Your task to perform on an android device: Open Youtube and go to the subscriptions tab Image 0: 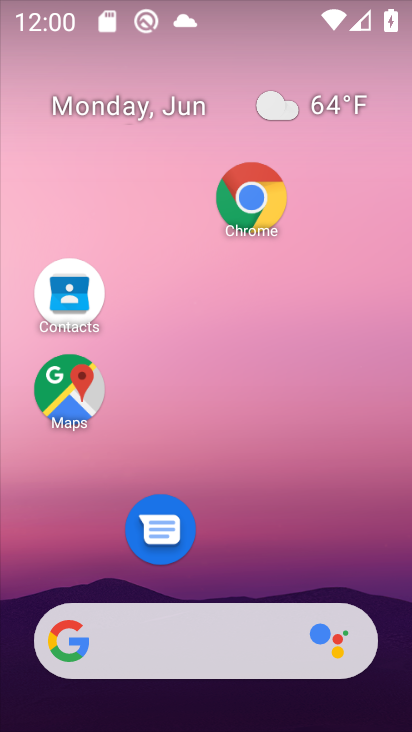
Step 0: drag from (295, 554) to (271, 32)
Your task to perform on an android device: Open Youtube and go to the subscriptions tab Image 1: 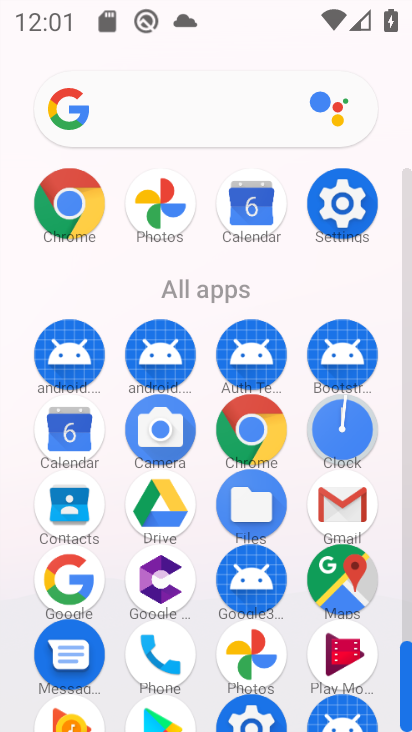
Step 1: drag from (208, 583) to (188, 252)
Your task to perform on an android device: Open Youtube and go to the subscriptions tab Image 2: 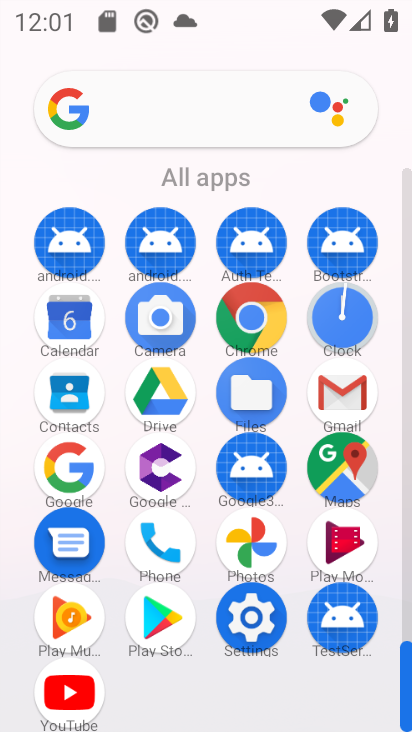
Step 2: click (84, 700)
Your task to perform on an android device: Open Youtube and go to the subscriptions tab Image 3: 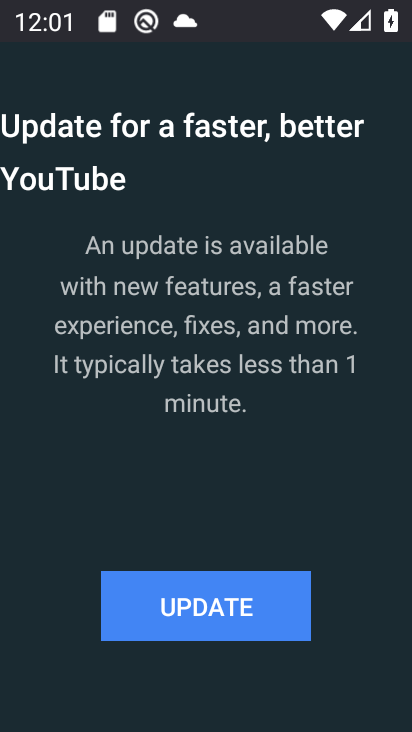
Step 3: click (261, 623)
Your task to perform on an android device: Open Youtube and go to the subscriptions tab Image 4: 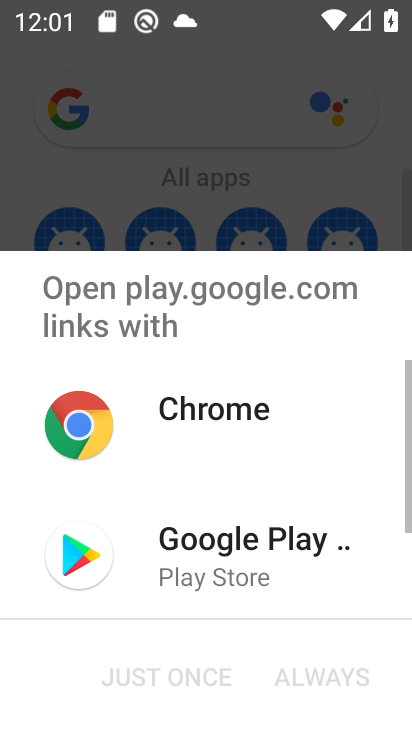
Step 4: click (86, 561)
Your task to perform on an android device: Open Youtube and go to the subscriptions tab Image 5: 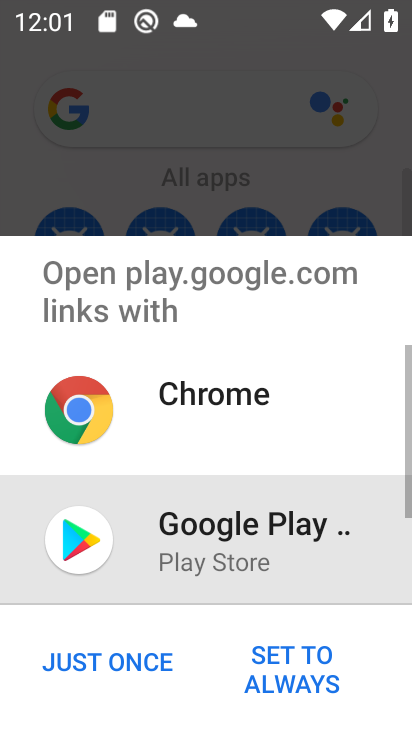
Step 5: click (113, 651)
Your task to perform on an android device: Open Youtube and go to the subscriptions tab Image 6: 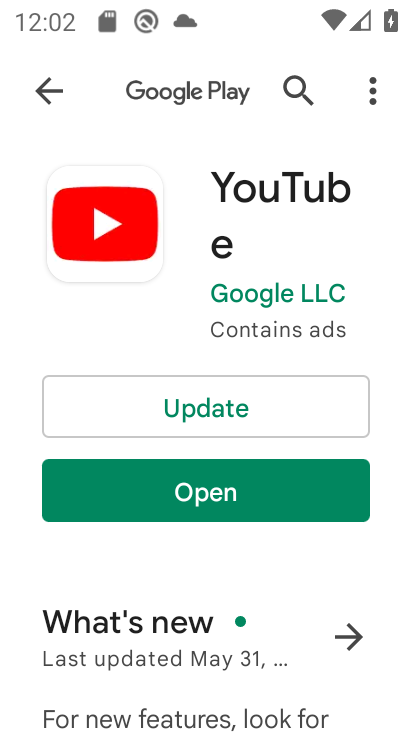
Step 6: click (226, 406)
Your task to perform on an android device: Open Youtube and go to the subscriptions tab Image 7: 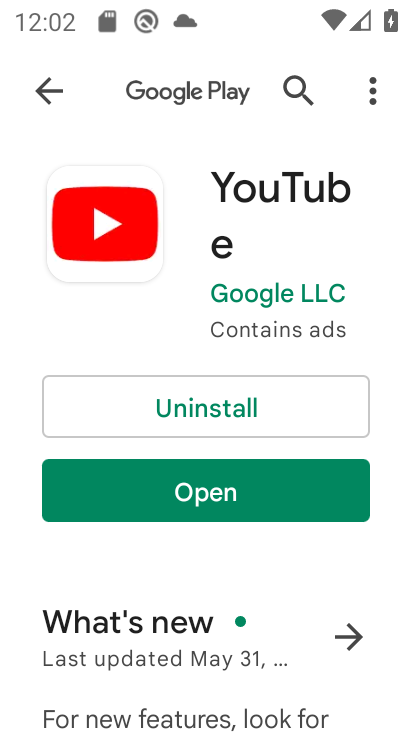
Step 7: click (181, 495)
Your task to perform on an android device: Open Youtube and go to the subscriptions tab Image 8: 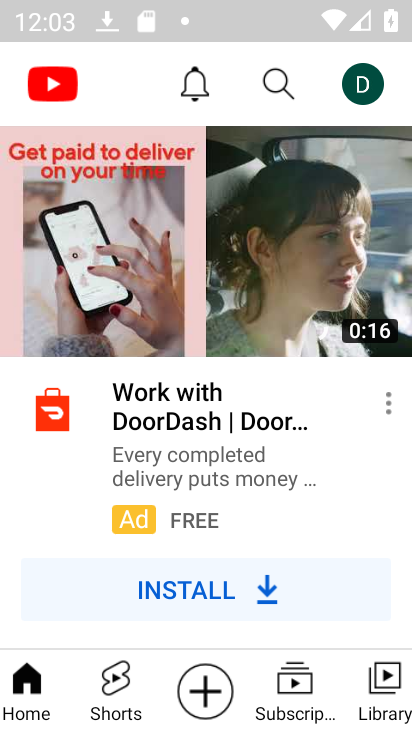
Step 8: click (310, 695)
Your task to perform on an android device: Open Youtube and go to the subscriptions tab Image 9: 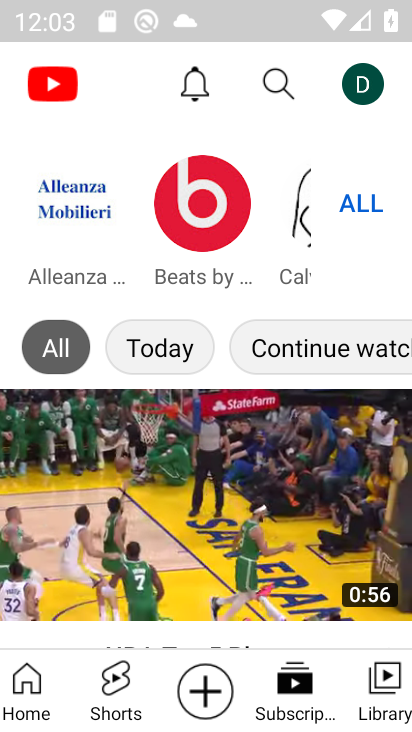
Step 9: task complete